Your task to perform on an android device: check google app version Image 0: 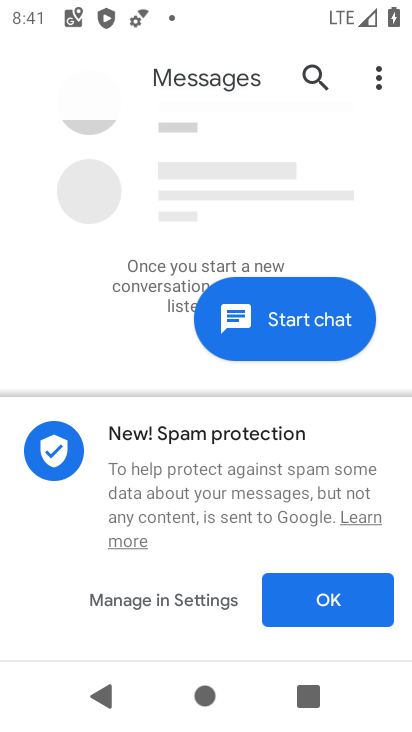
Step 0: press back button
Your task to perform on an android device: check google app version Image 1: 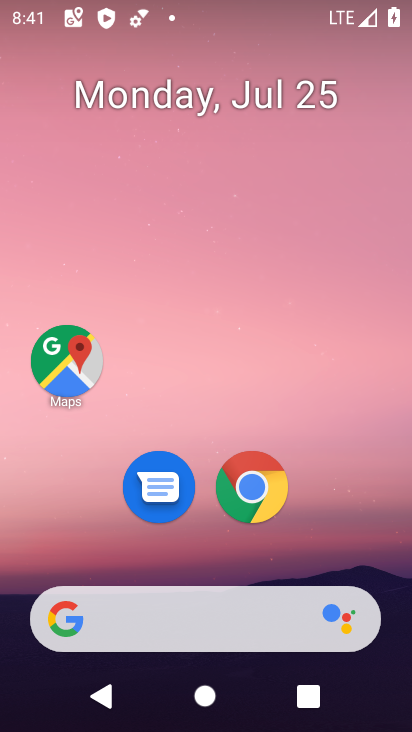
Step 1: drag from (138, 559) to (256, 117)
Your task to perform on an android device: check google app version Image 2: 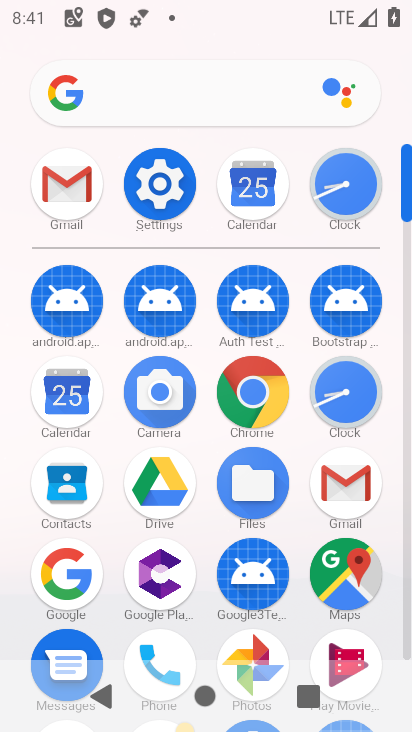
Step 2: click (70, 578)
Your task to perform on an android device: check google app version Image 3: 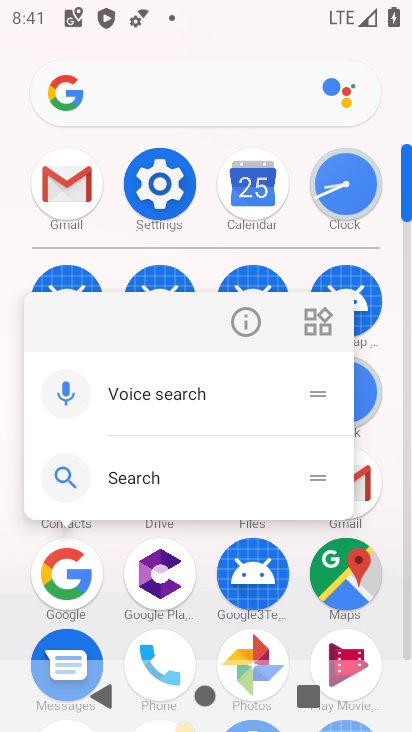
Step 3: click (247, 314)
Your task to perform on an android device: check google app version Image 4: 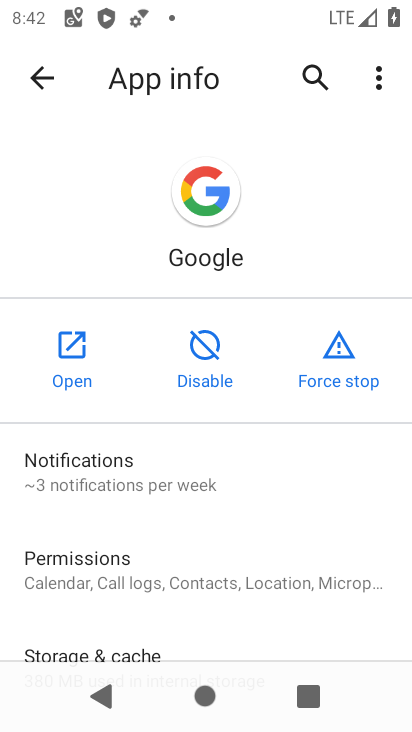
Step 4: drag from (130, 609) to (266, 98)
Your task to perform on an android device: check google app version Image 5: 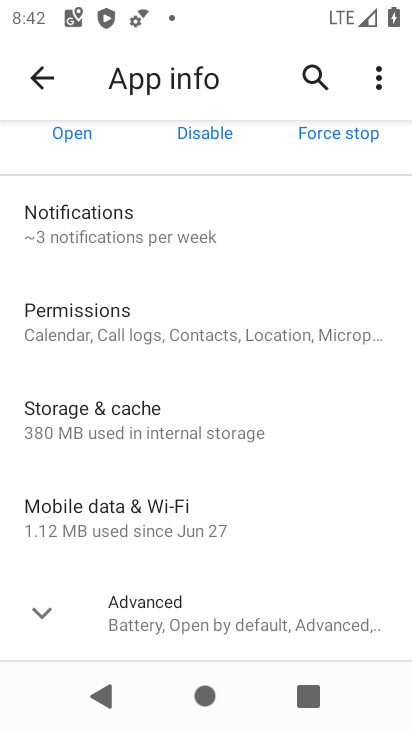
Step 5: click (142, 586)
Your task to perform on an android device: check google app version Image 6: 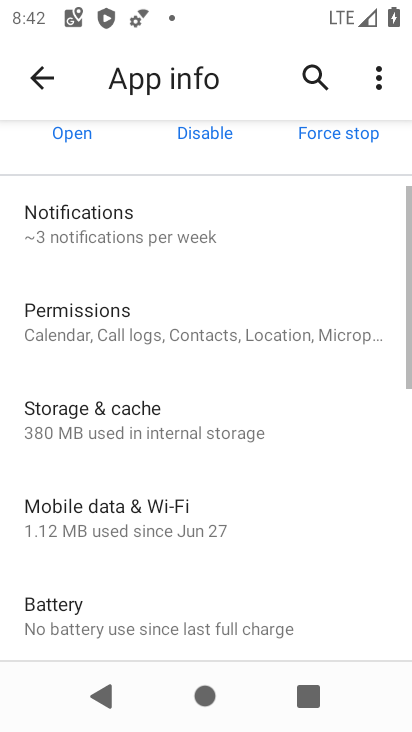
Step 6: task complete